Your task to perform on an android device: Clear the shopping cart on walmart.com. Add "razer kraken" to the cart on walmart.com, then select checkout. Image 0: 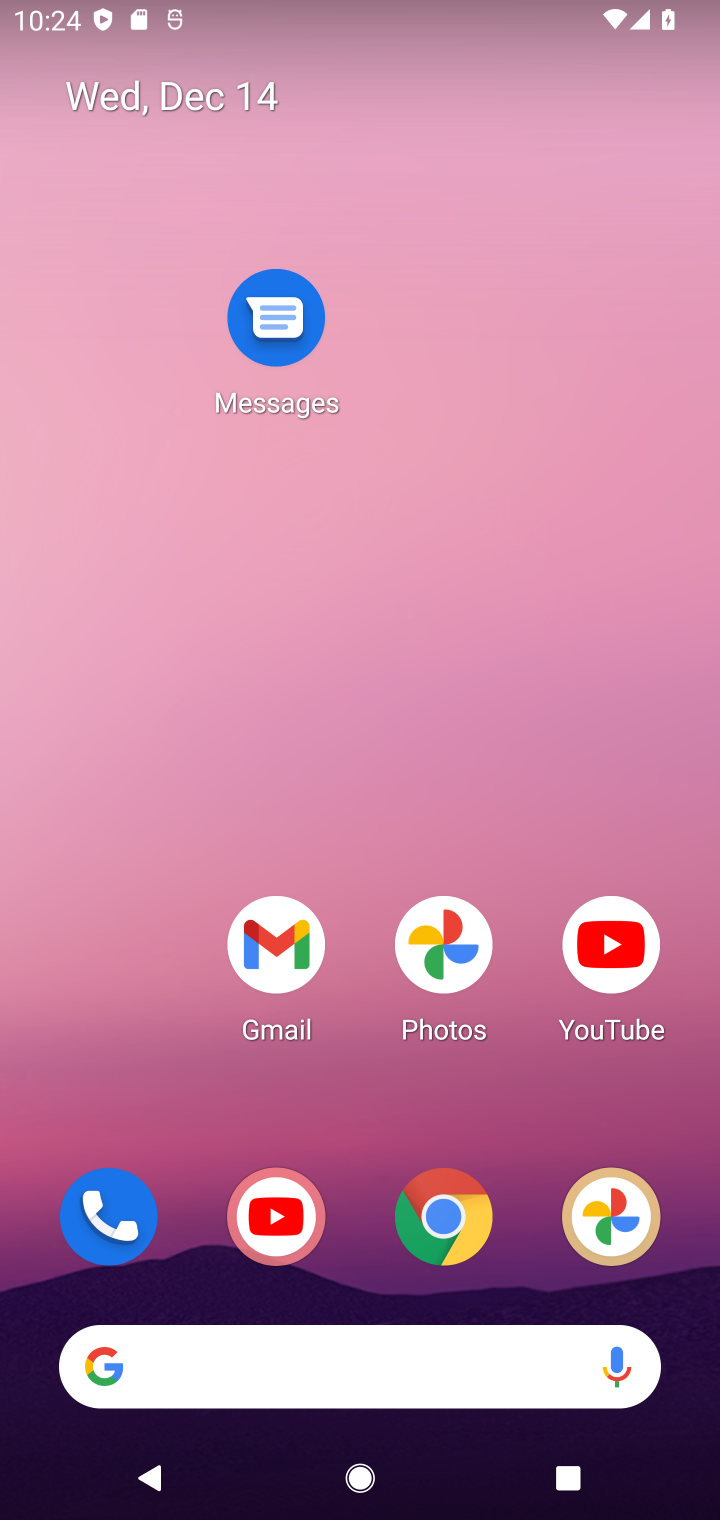
Step 0: drag from (361, 1257) to (263, 292)
Your task to perform on an android device: Clear the shopping cart on walmart.com. Add "razer kraken" to the cart on walmart.com, then select checkout. Image 1: 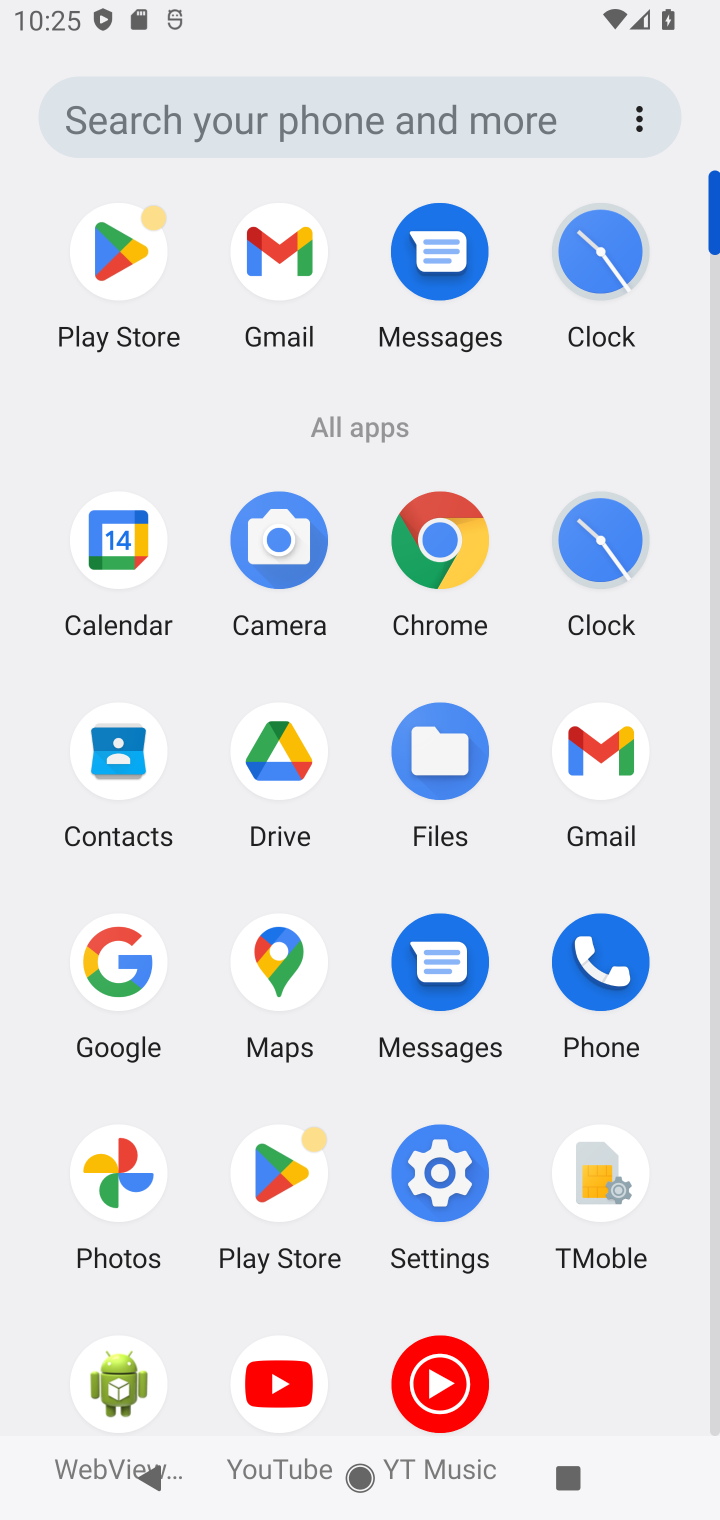
Step 1: click (119, 966)
Your task to perform on an android device: Clear the shopping cart on walmart.com. Add "razer kraken" to the cart on walmart.com, then select checkout. Image 2: 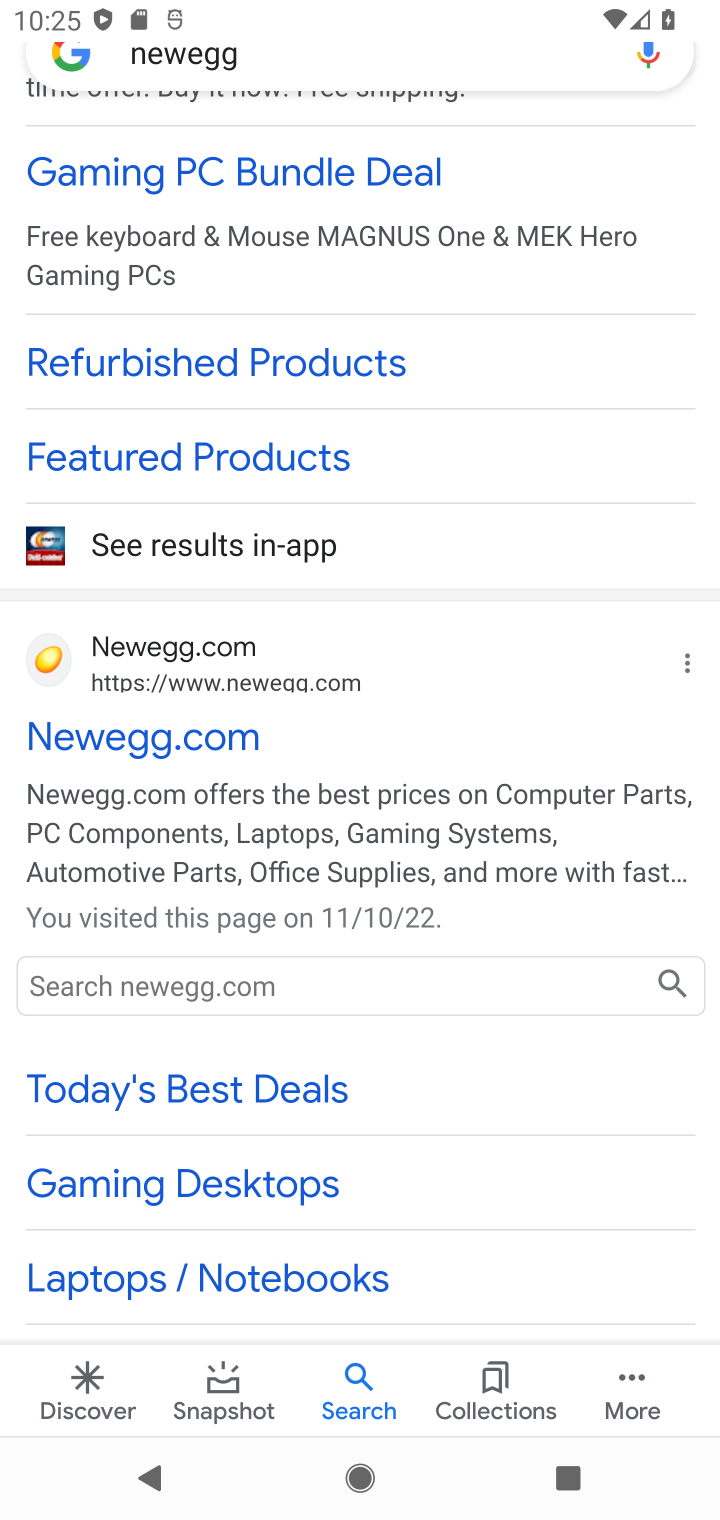
Step 2: drag from (272, 149) to (394, 1305)
Your task to perform on an android device: Clear the shopping cart on walmart.com. Add "razer kraken" to the cart on walmart.com, then select checkout. Image 3: 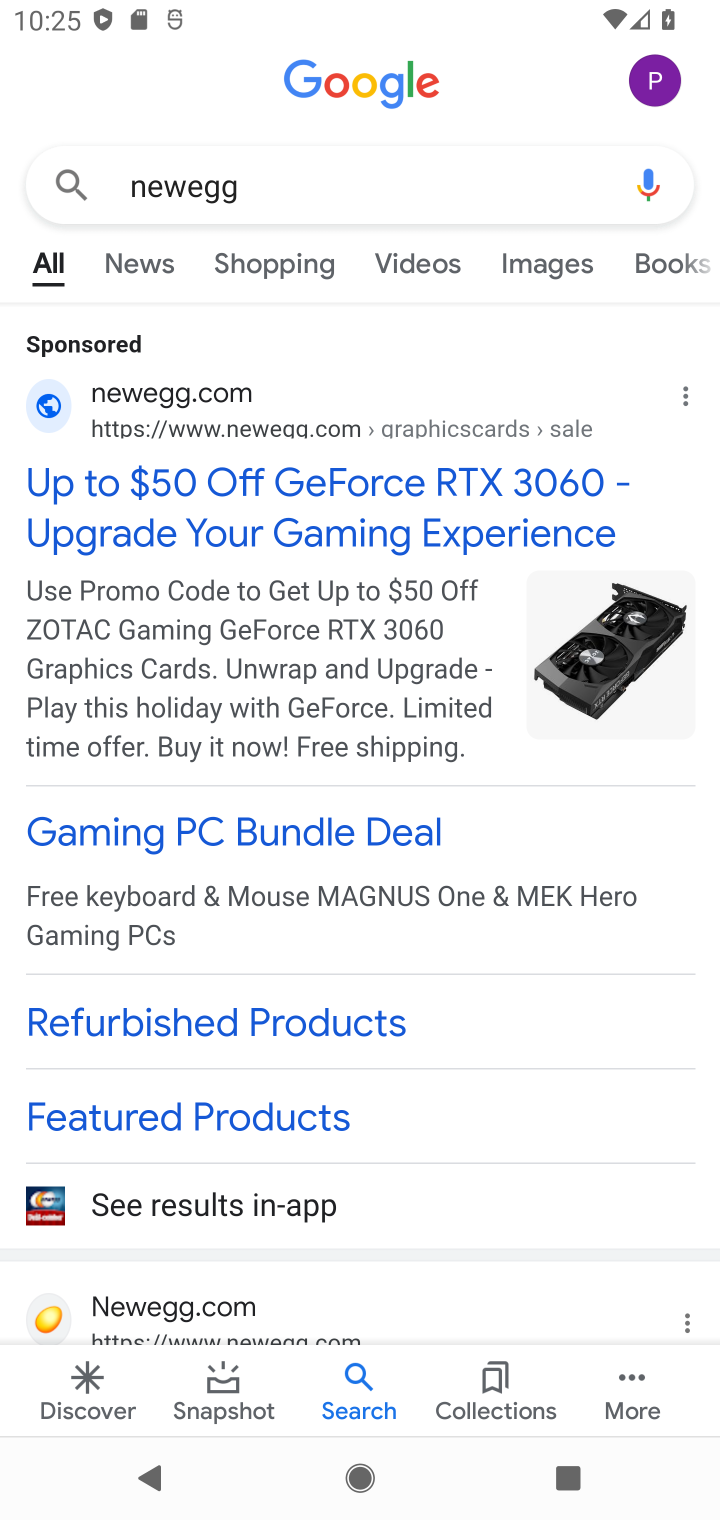
Step 3: click (220, 169)
Your task to perform on an android device: Clear the shopping cart on walmart.com. Add "razer kraken" to the cart on walmart.com, then select checkout. Image 4: 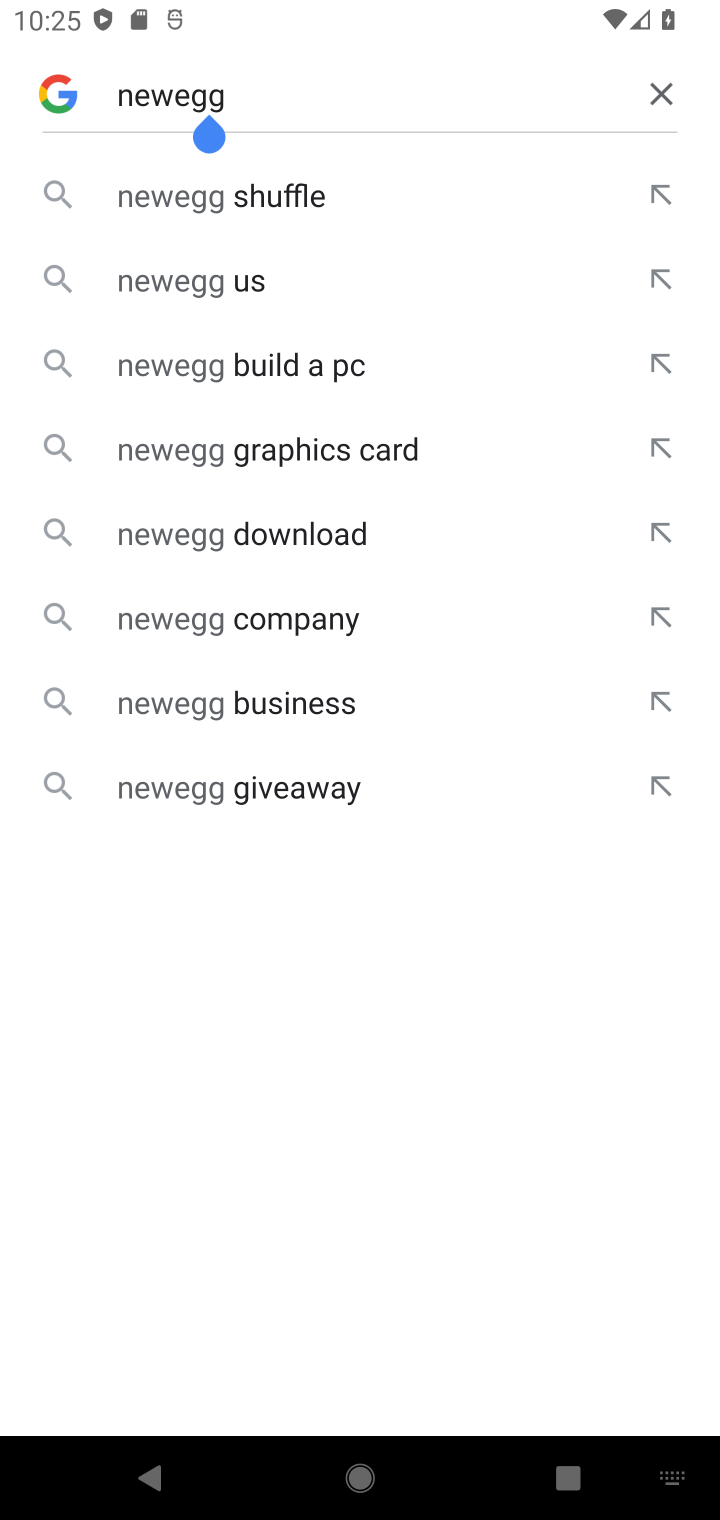
Step 4: click (655, 89)
Your task to perform on an android device: Clear the shopping cart on walmart.com. Add "razer kraken" to the cart on walmart.com, then select checkout. Image 5: 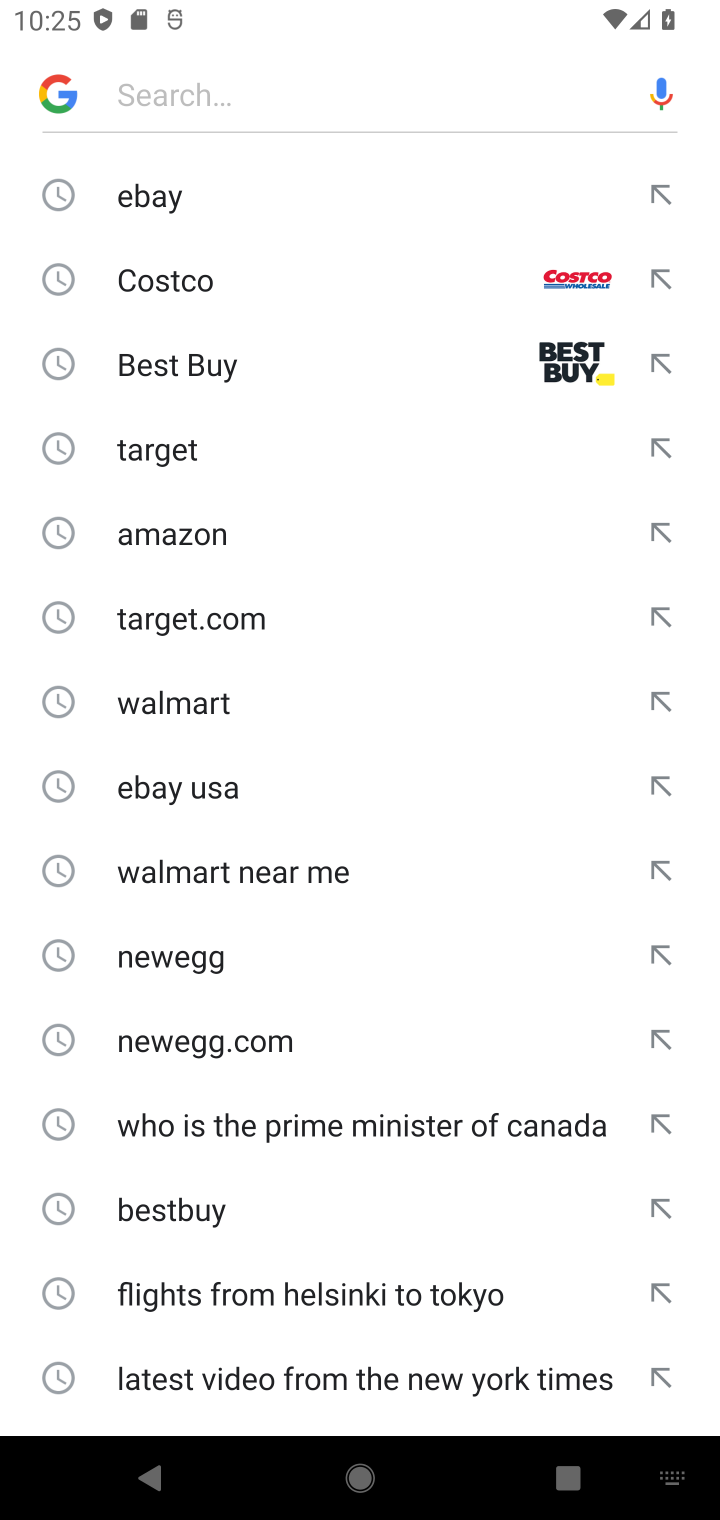
Step 5: click (154, 709)
Your task to perform on an android device: Clear the shopping cart on walmart.com. Add "razer kraken" to the cart on walmart.com, then select checkout. Image 6: 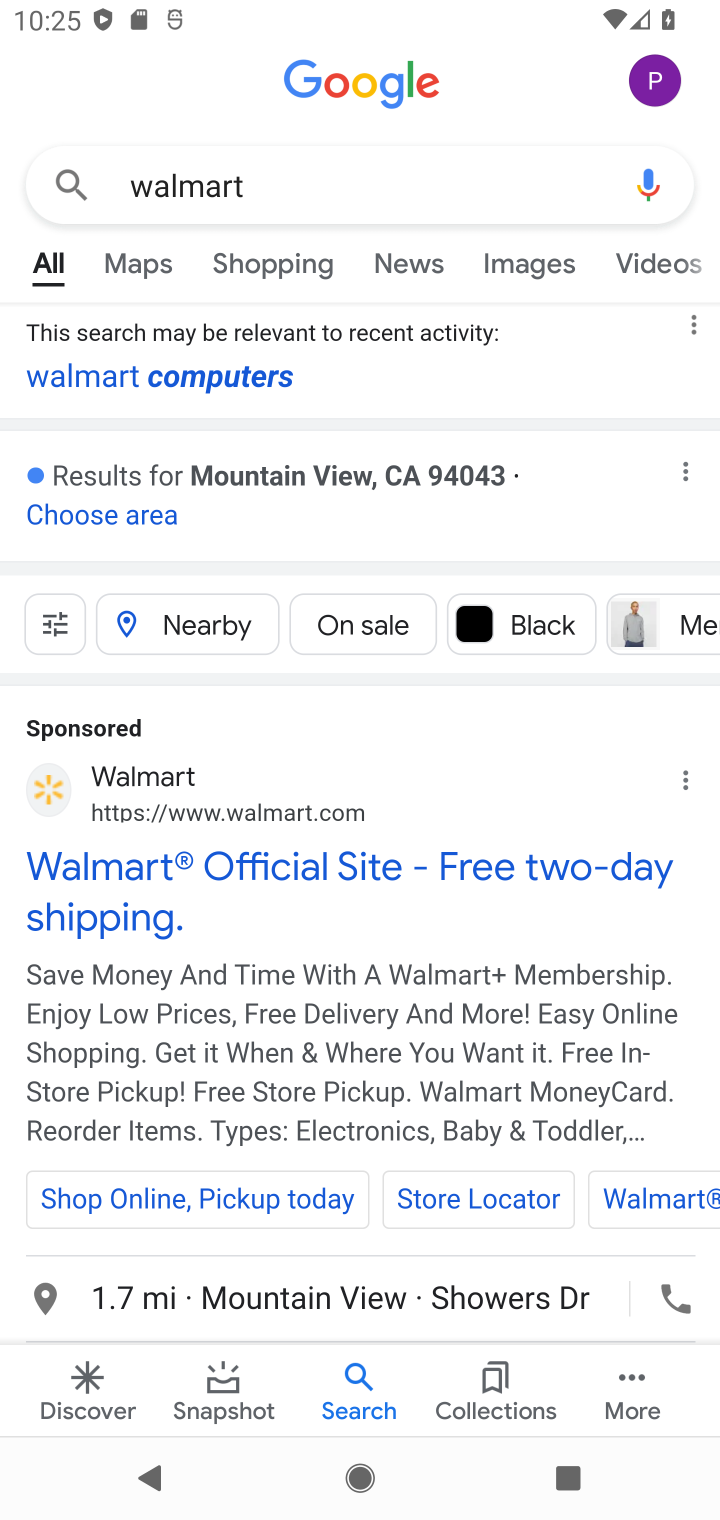
Step 6: click (160, 884)
Your task to perform on an android device: Clear the shopping cart on walmart.com. Add "razer kraken" to the cart on walmart.com, then select checkout. Image 7: 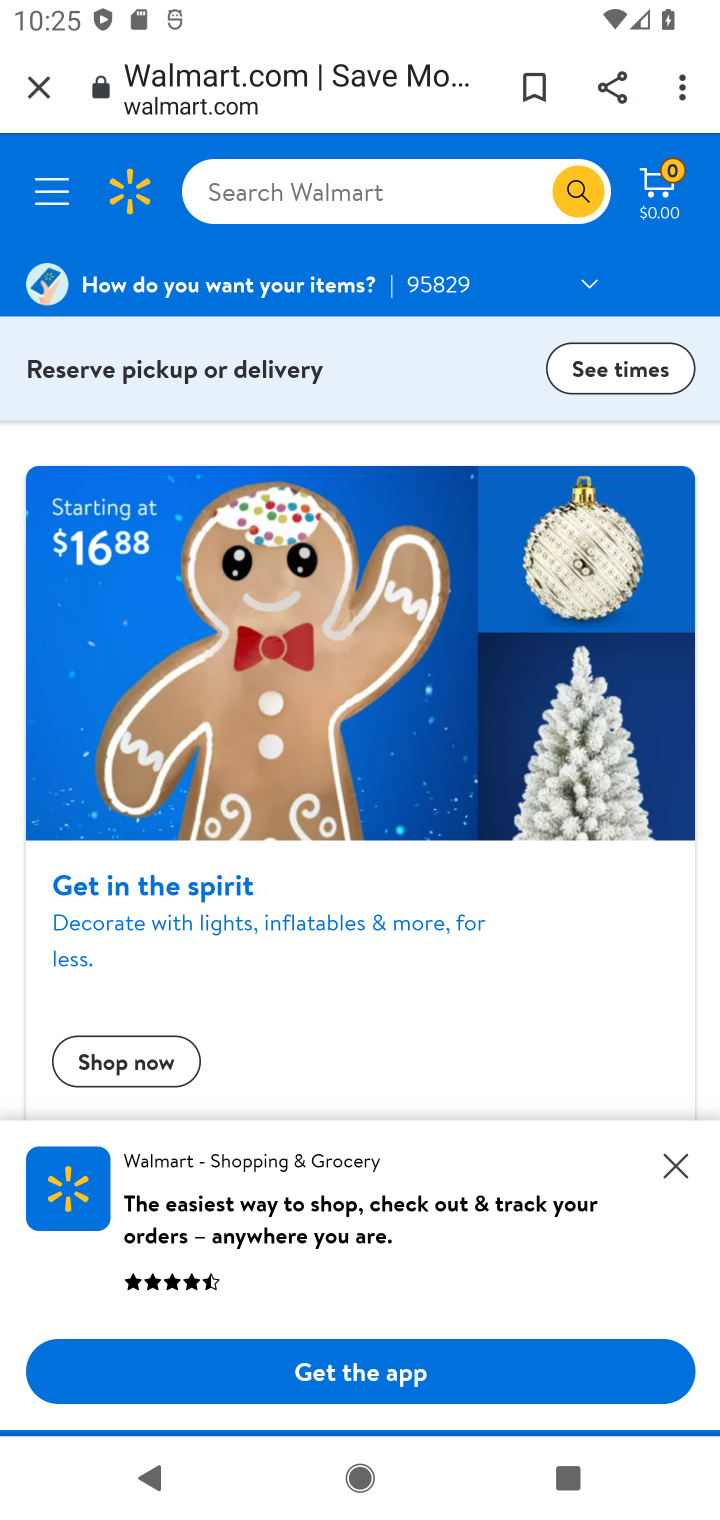
Step 7: click (288, 181)
Your task to perform on an android device: Clear the shopping cart on walmart.com. Add "razer kraken" to the cart on walmart.com, then select checkout. Image 8: 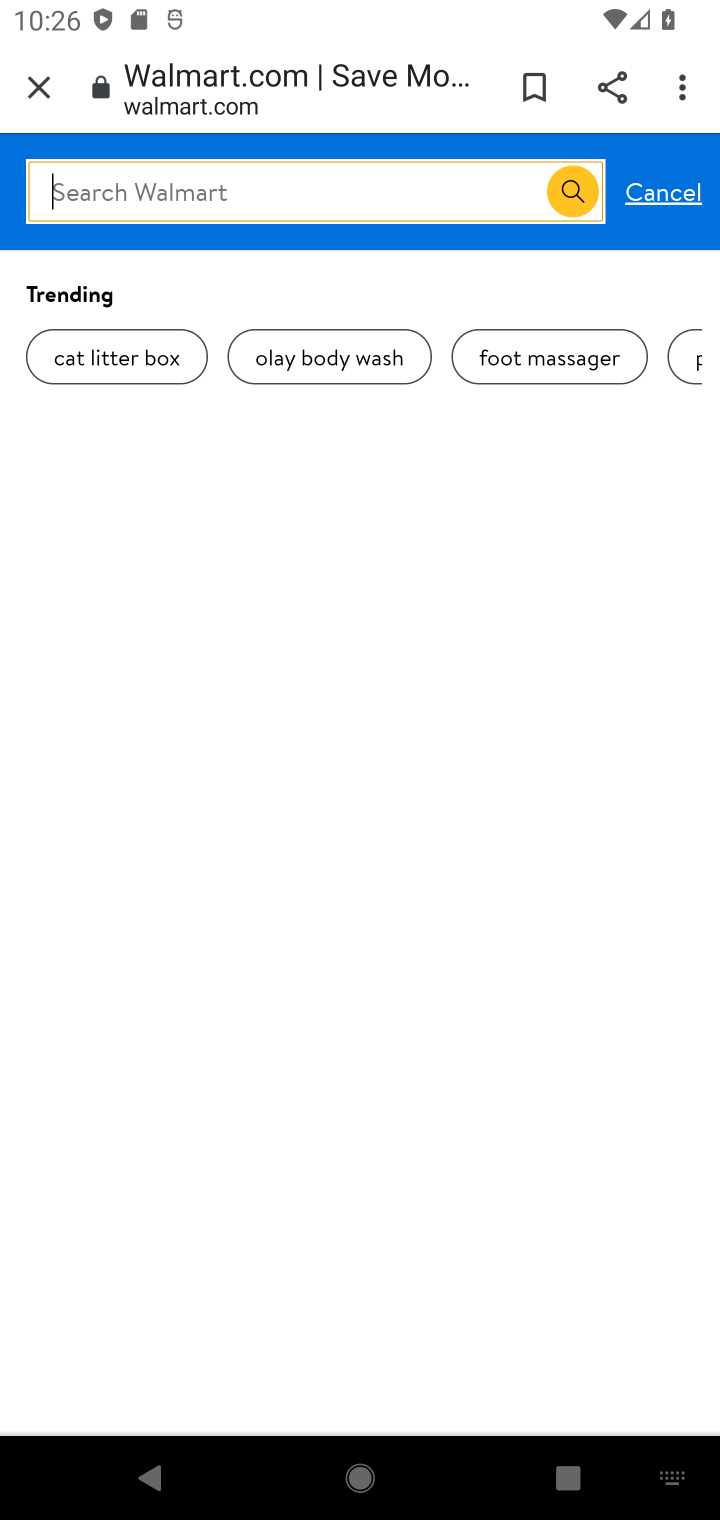
Step 8: type "razer kraken"
Your task to perform on an android device: Clear the shopping cart on walmart.com. Add "razer kraken" to the cart on walmart.com, then select checkout. Image 9: 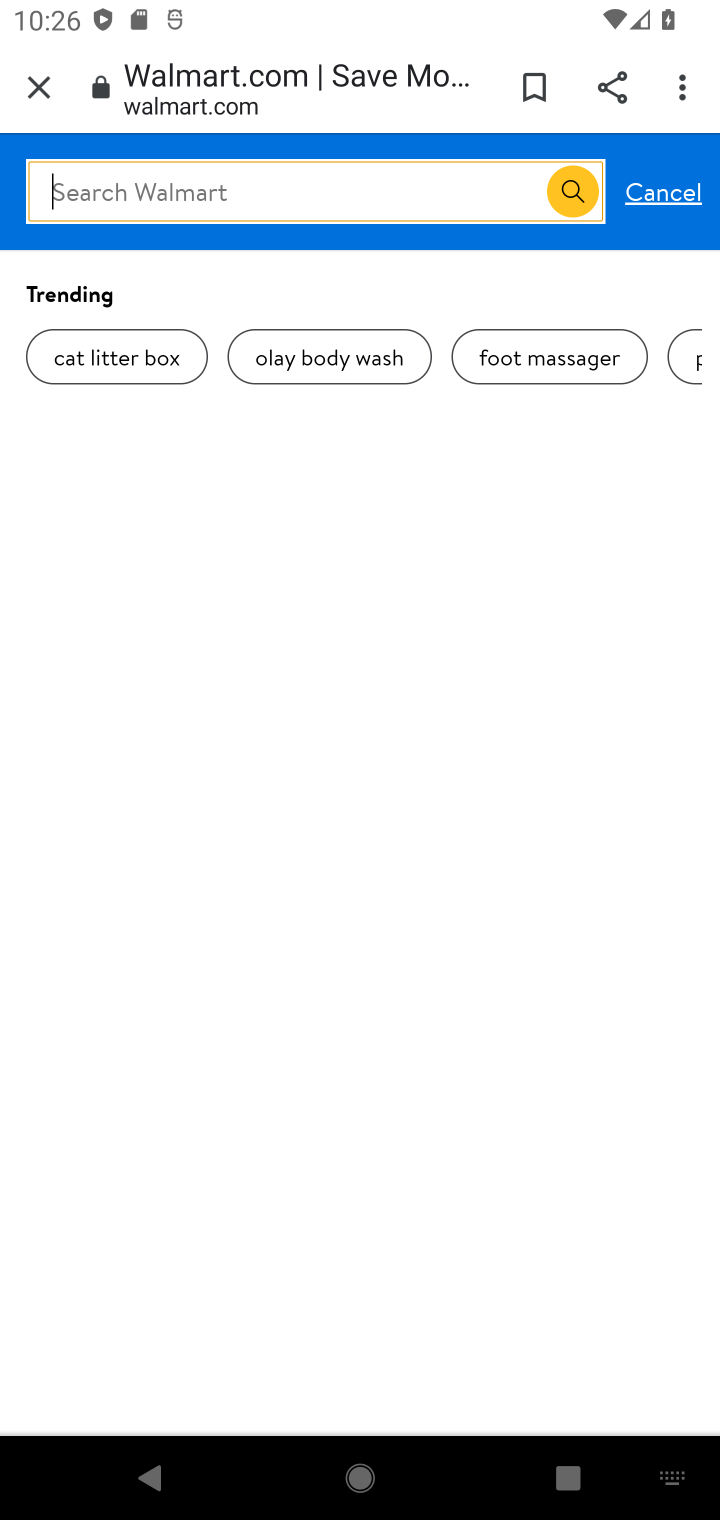
Step 9: click (555, 195)
Your task to perform on an android device: Clear the shopping cart on walmart.com. Add "razer kraken" to the cart on walmart.com, then select checkout. Image 10: 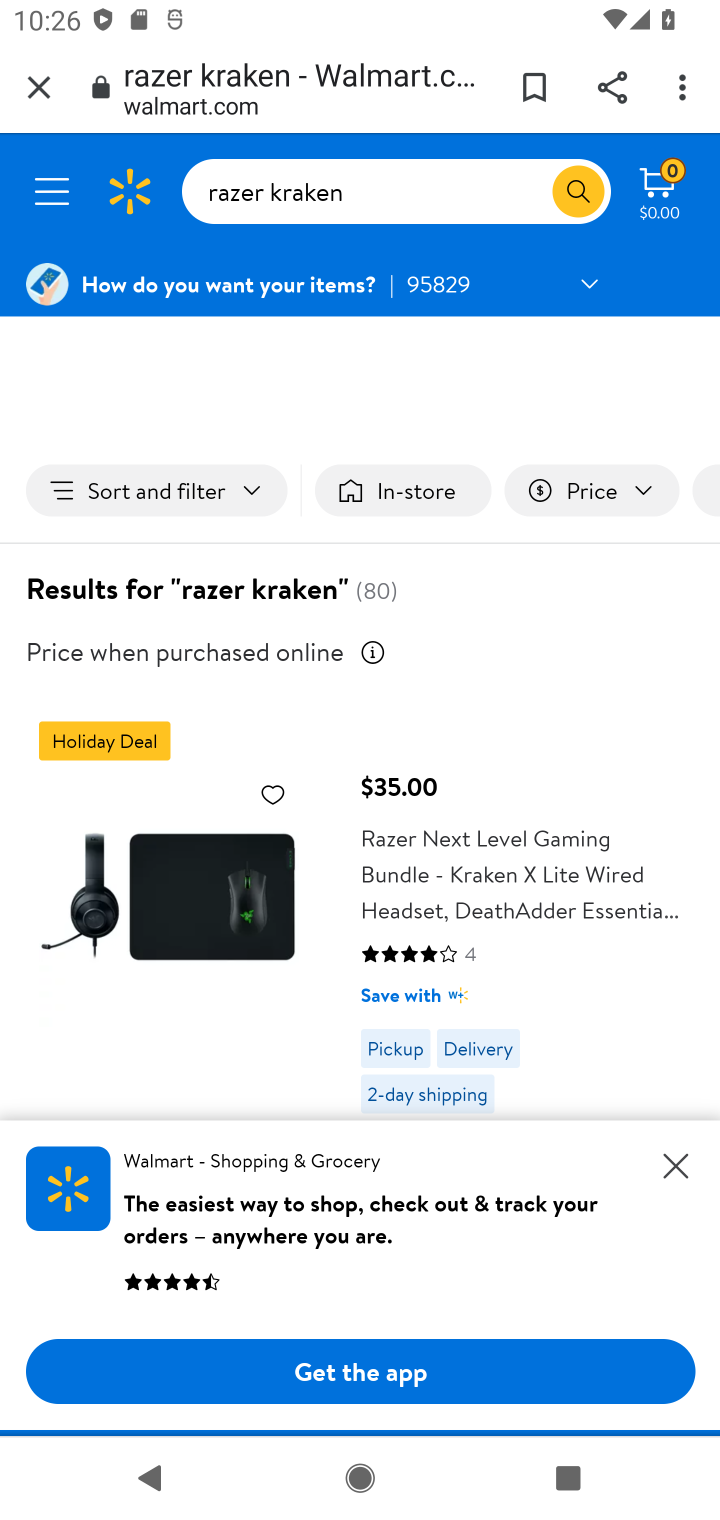
Step 10: click (668, 1170)
Your task to perform on an android device: Clear the shopping cart on walmart.com. Add "razer kraken" to the cart on walmart.com, then select checkout. Image 11: 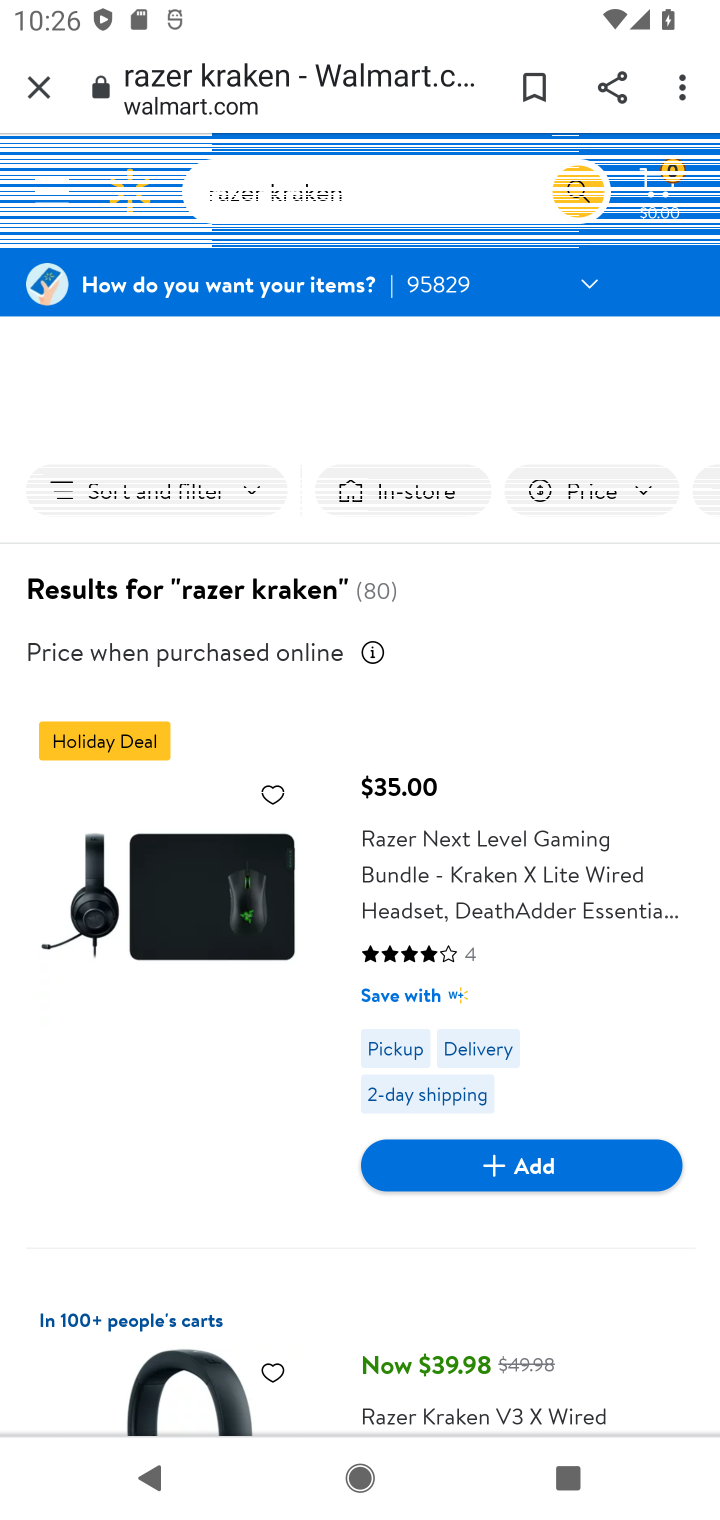
Step 11: click (537, 1174)
Your task to perform on an android device: Clear the shopping cart on walmart.com. Add "razer kraken" to the cart on walmart.com, then select checkout. Image 12: 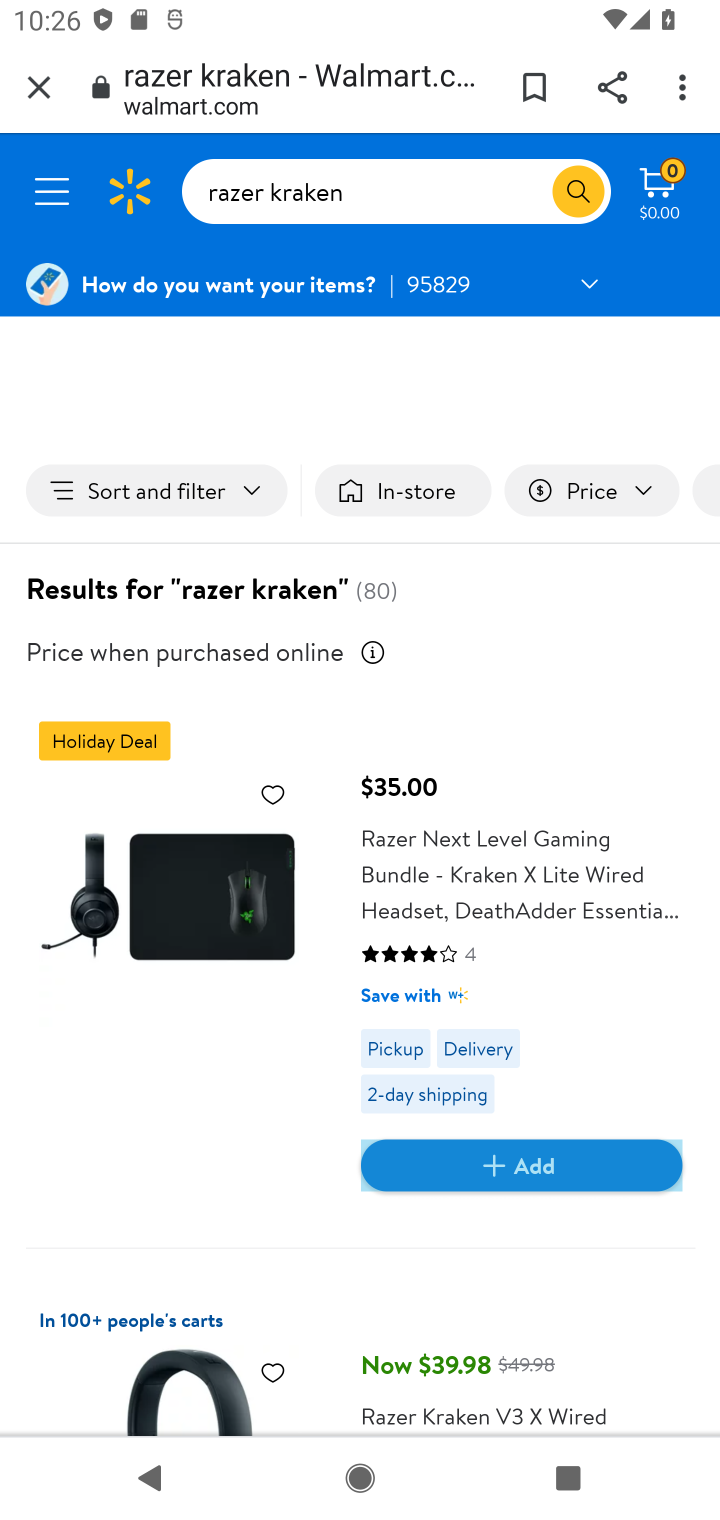
Step 12: click (460, 1170)
Your task to perform on an android device: Clear the shopping cart on walmart.com. Add "razer kraken" to the cart on walmart.com, then select checkout. Image 13: 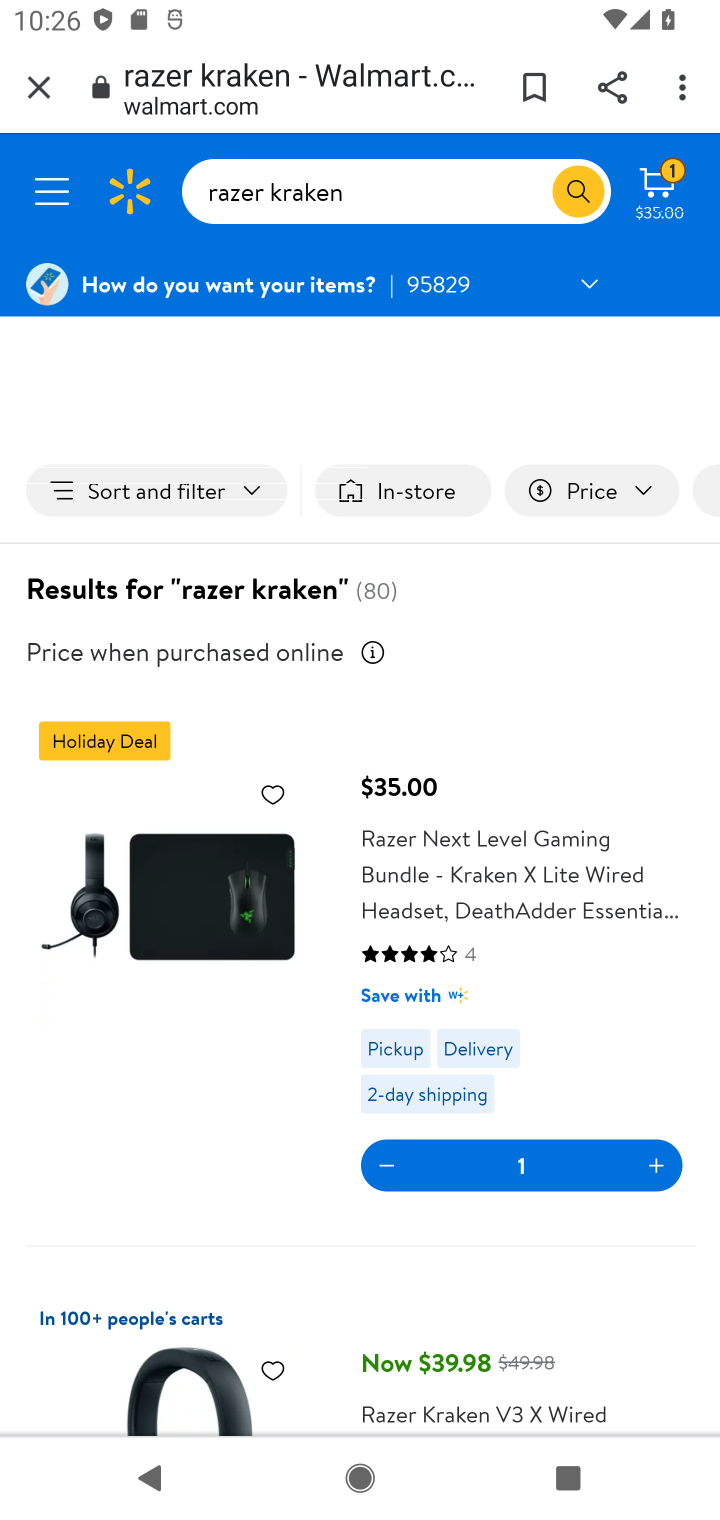
Step 13: click (658, 178)
Your task to perform on an android device: Clear the shopping cart on walmart.com. Add "razer kraken" to the cart on walmart.com, then select checkout. Image 14: 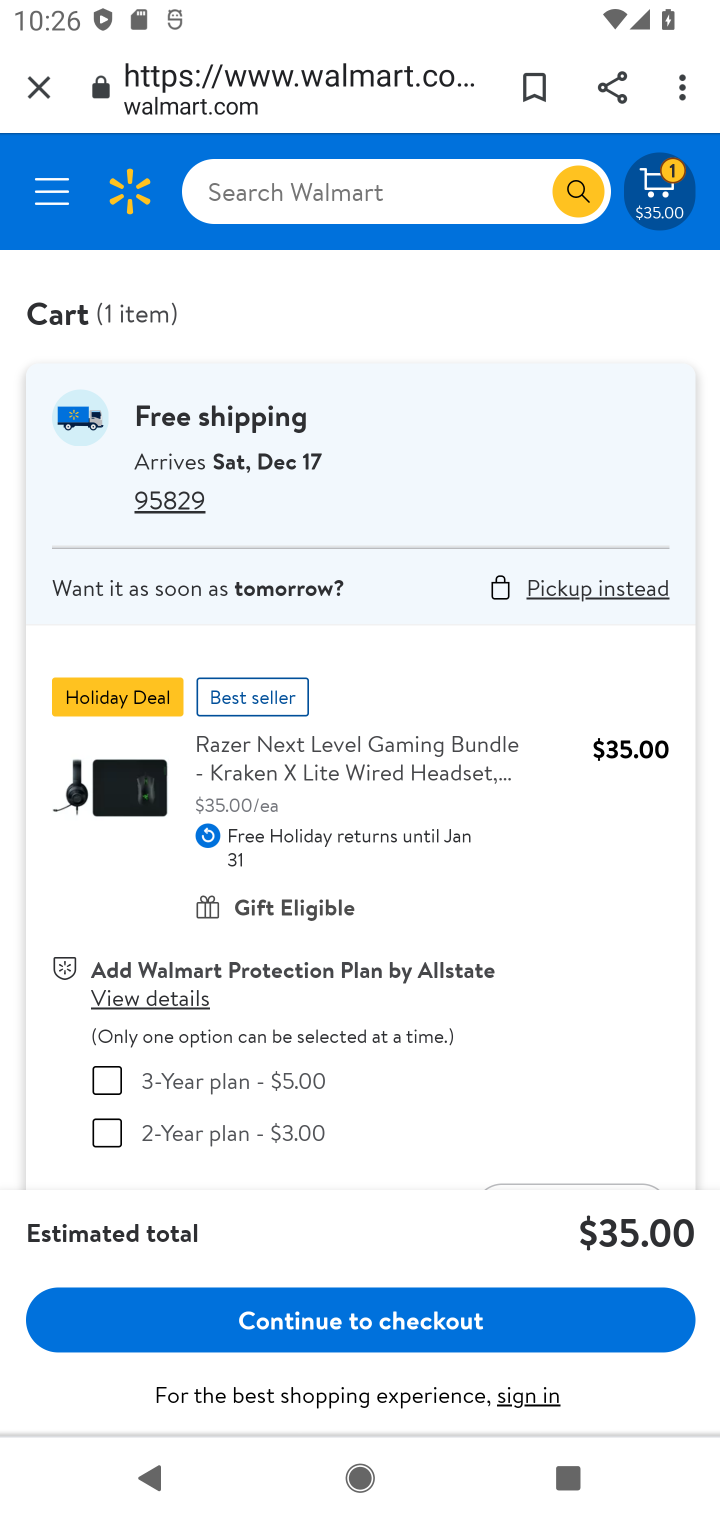
Step 14: click (385, 1316)
Your task to perform on an android device: Clear the shopping cart on walmart.com. Add "razer kraken" to the cart on walmart.com, then select checkout. Image 15: 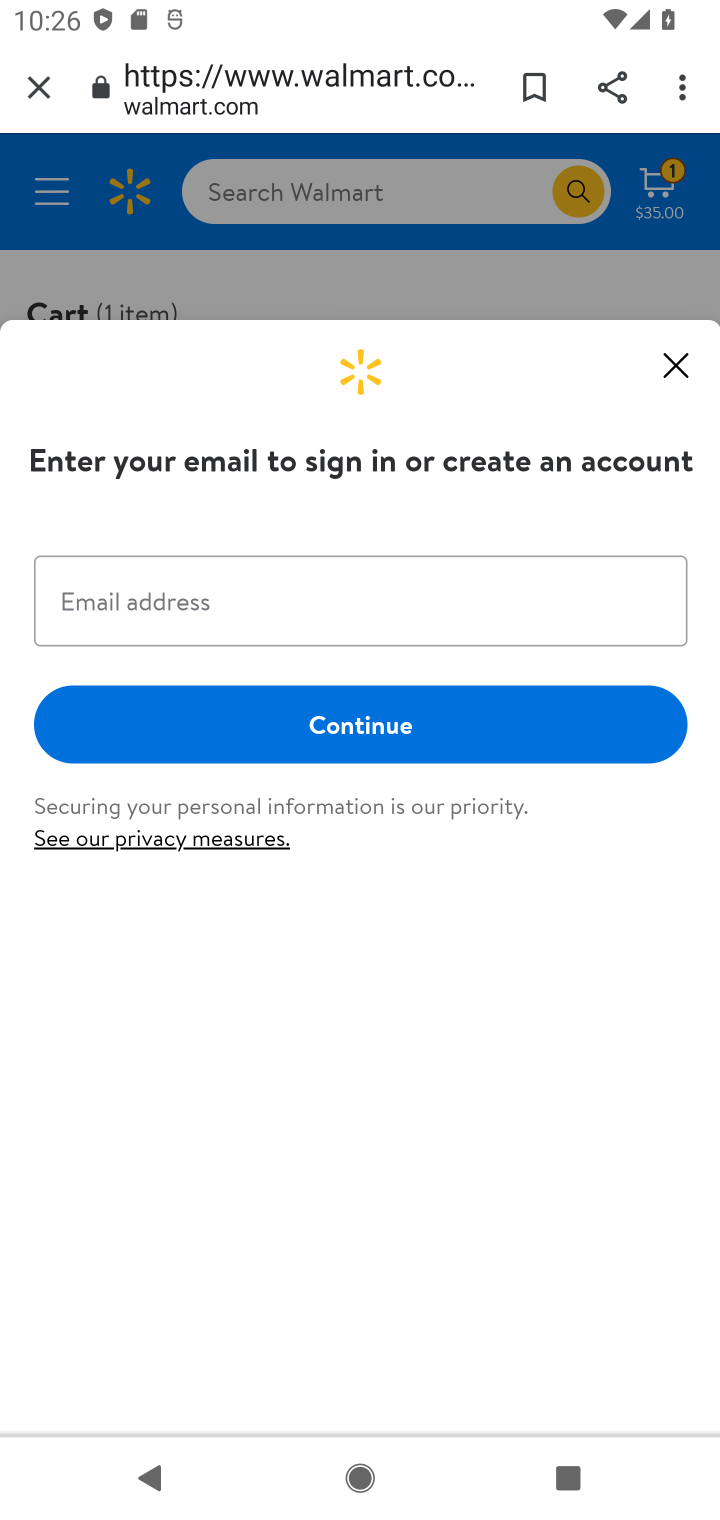
Step 15: task complete